Your task to perform on an android device: Open notification settings Image 0: 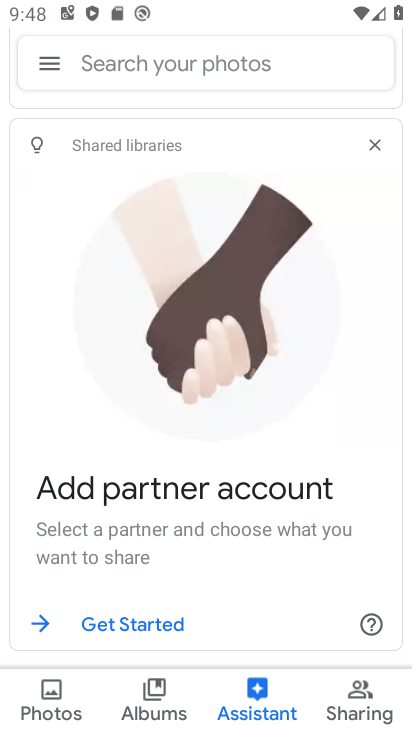
Step 0: press back button
Your task to perform on an android device: Open notification settings Image 1: 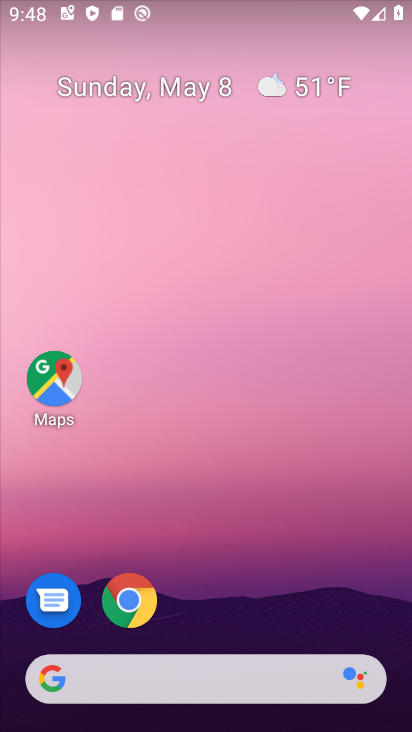
Step 1: drag from (285, 589) to (268, 3)
Your task to perform on an android device: Open notification settings Image 2: 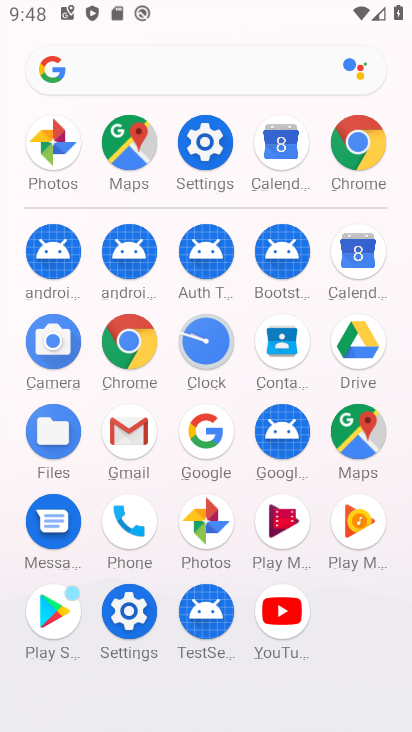
Step 2: drag from (16, 603) to (14, 256)
Your task to perform on an android device: Open notification settings Image 3: 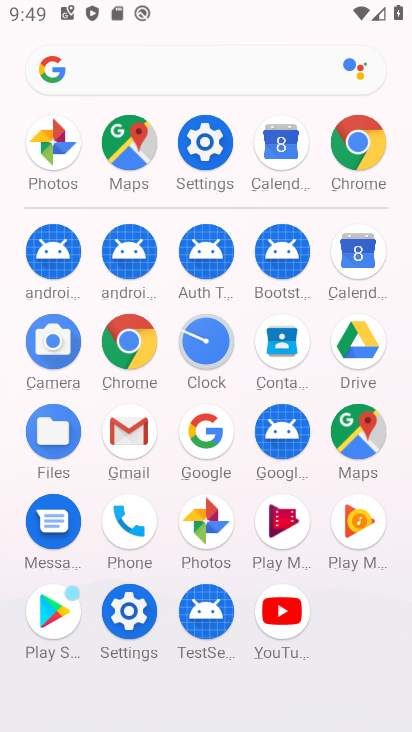
Step 3: click (133, 611)
Your task to perform on an android device: Open notification settings Image 4: 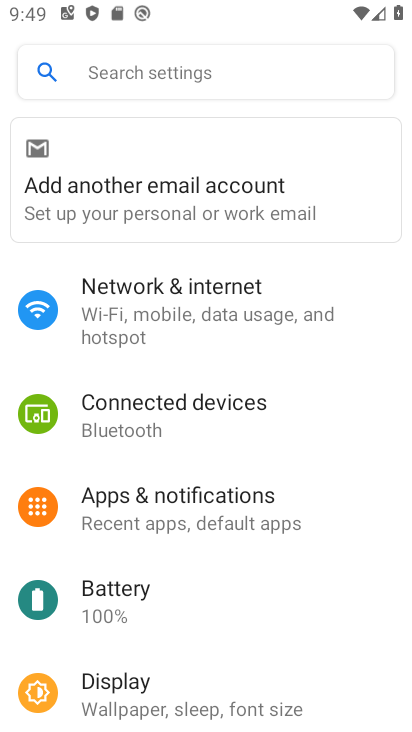
Step 4: drag from (313, 593) to (331, 163)
Your task to perform on an android device: Open notification settings Image 5: 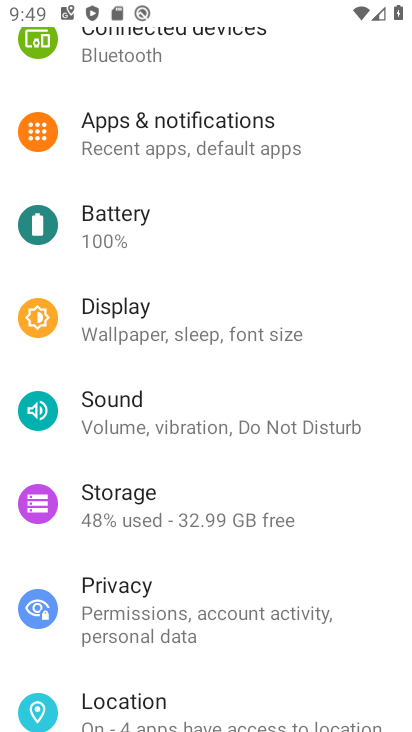
Step 5: drag from (333, 597) to (317, 174)
Your task to perform on an android device: Open notification settings Image 6: 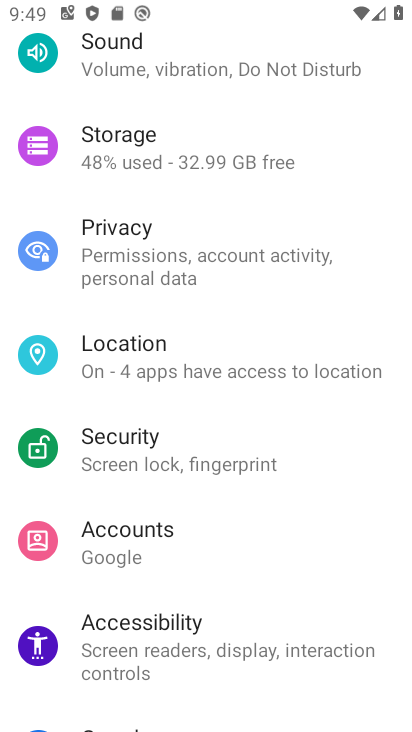
Step 6: drag from (269, 566) to (268, 173)
Your task to perform on an android device: Open notification settings Image 7: 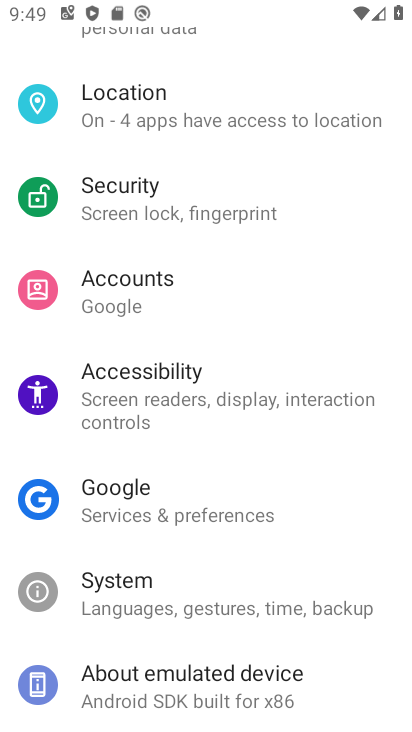
Step 7: drag from (287, 592) to (304, 198)
Your task to perform on an android device: Open notification settings Image 8: 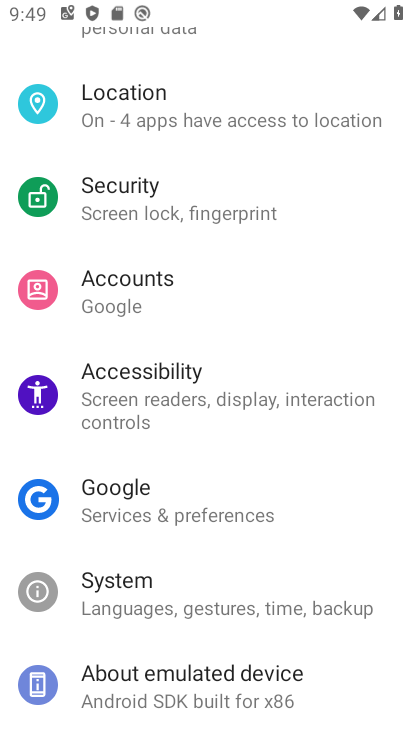
Step 8: drag from (304, 110) to (308, 564)
Your task to perform on an android device: Open notification settings Image 9: 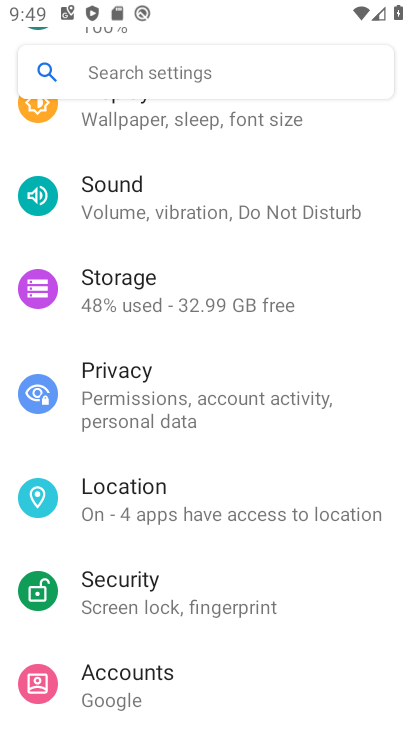
Step 9: drag from (232, 191) to (236, 623)
Your task to perform on an android device: Open notification settings Image 10: 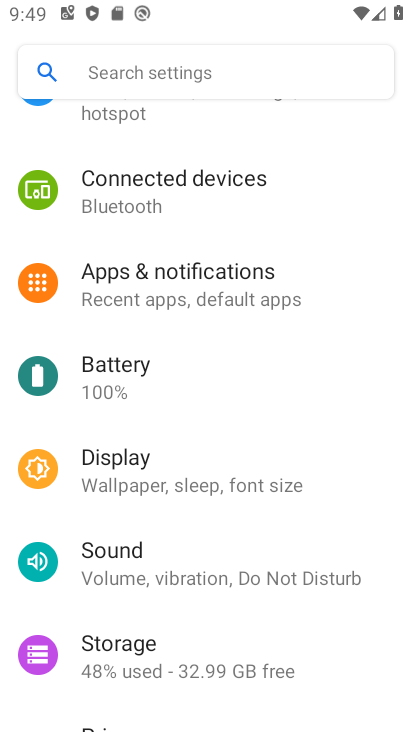
Step 10: click (182, 281)
Your task to perform on an android device: Open notification settings Image 11: 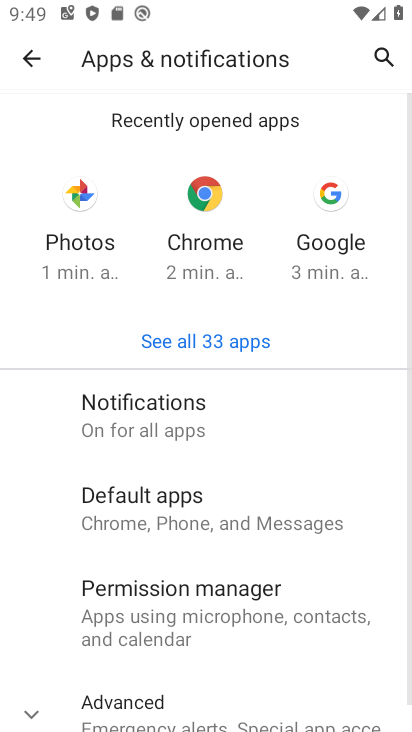
Step 11: click (181, 411)
Your task to perform on an android device: Open notification settings Image 12: 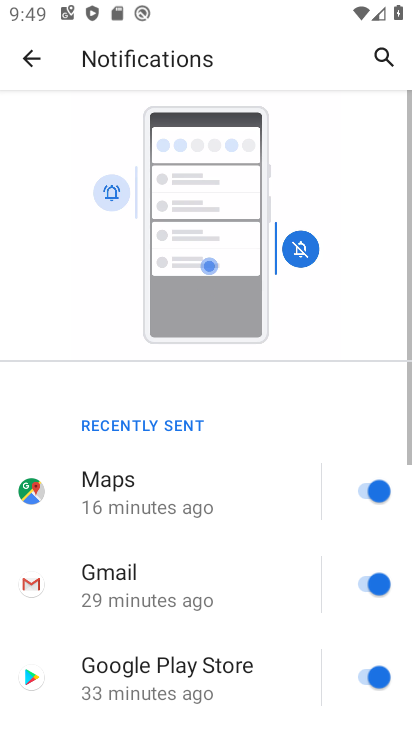
Step 12: task complete